Your task to perform on an android device: View the shopping cart on amazon. Search for "logitech g502" on amazon, select the first entry, add it to the cart, then select checkout. Image 0: 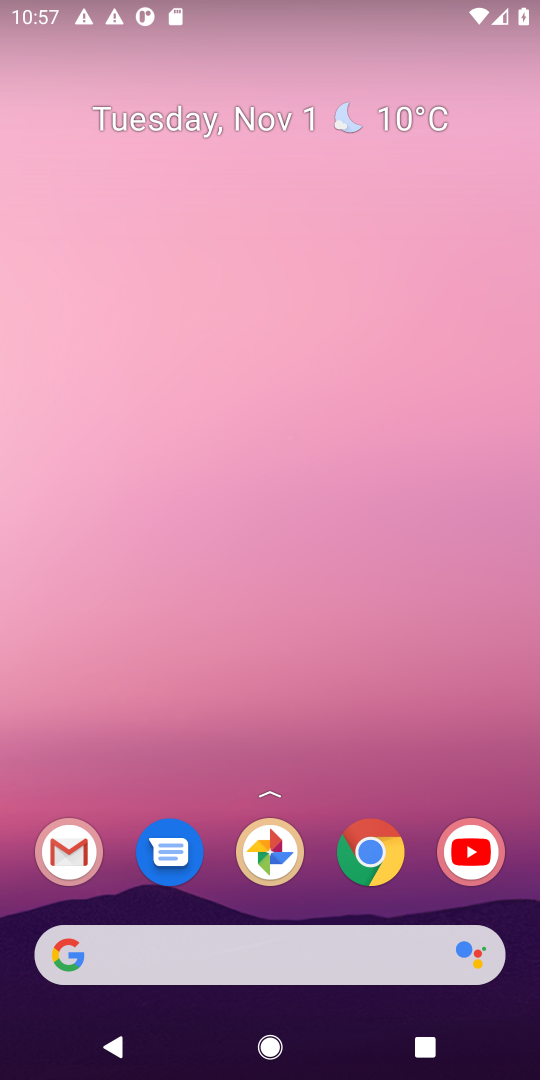
Step 0: press home button
Your task to perform on an android device: View the shopping cart on amazon. Search for "logitech g502" on amazon, select the first entry, add it to the cart, then select checkout. Image 1: 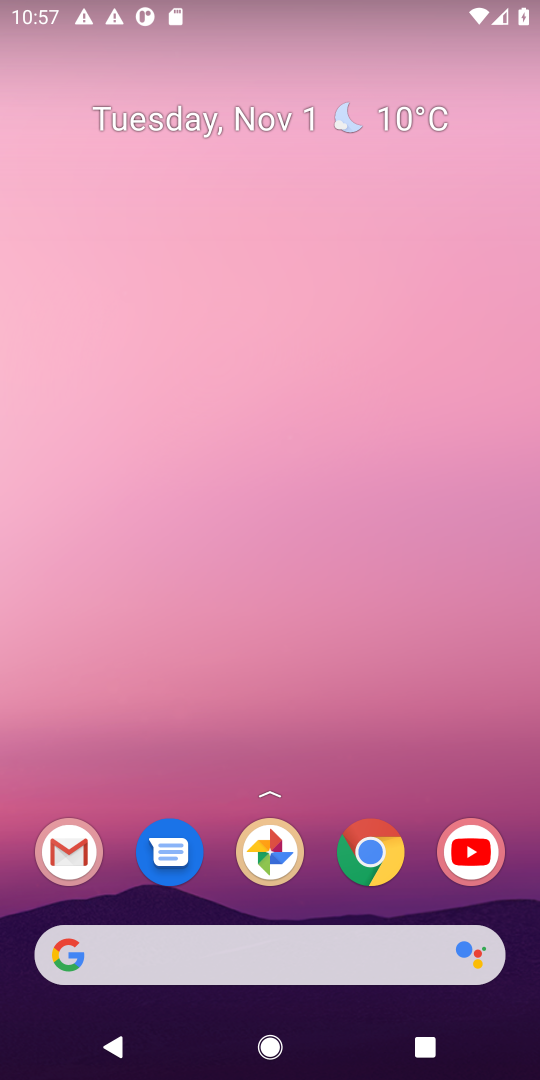
Step 1: click (55, 949)
Your task to perform on an android device: View the shopping cart on amazon. Search for "logitech g502" on amazon, select the first entry, add it to the cart, then select checkout. Image 2: 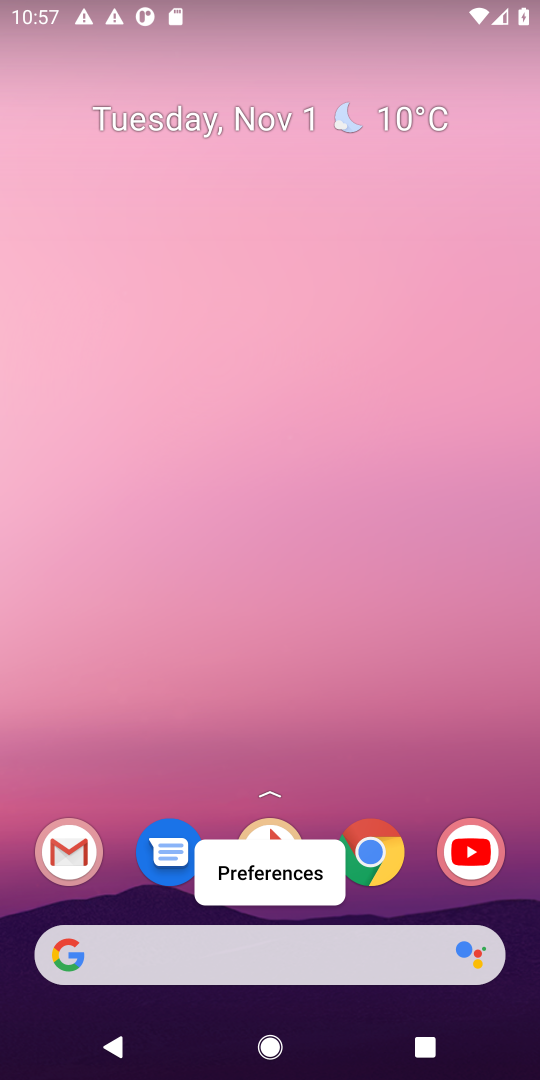
Step 2: click (61, 962)
Your task to perform on an android device: View the shopping cart on amazon. Search for "logitech g502" on amazon, select the first entry, add it to the cart, then select checkout. Image 3: 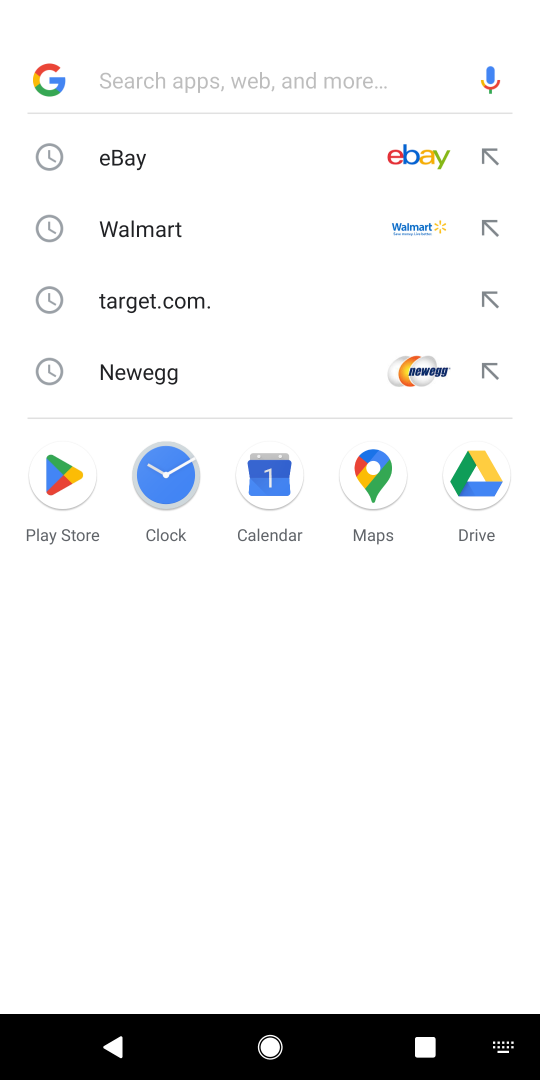
Step 3: type " amazon"
Your task to perform on an android device: View the shopping cart on amazon. Search for "logitech g502" on amazon, select the first entry, add it to the cart, then select checkout. Image 4: 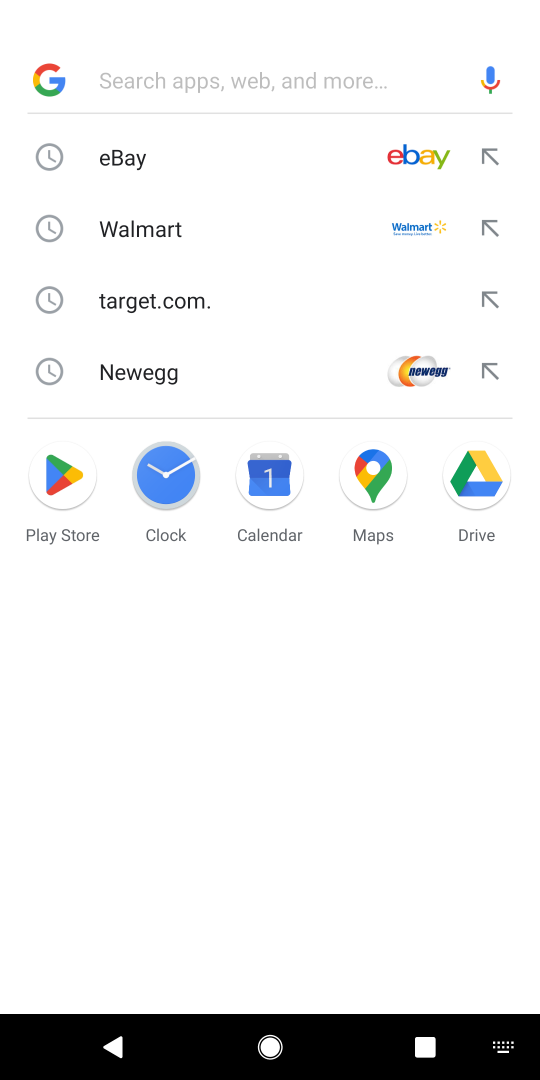
Step 4: click (111, 73)
Your task to perform on an android device: View the shopping cart on amazon. Search for "logitech g502" on amazon, select the first entry, add it to the cart, then select checkout. Image 5: 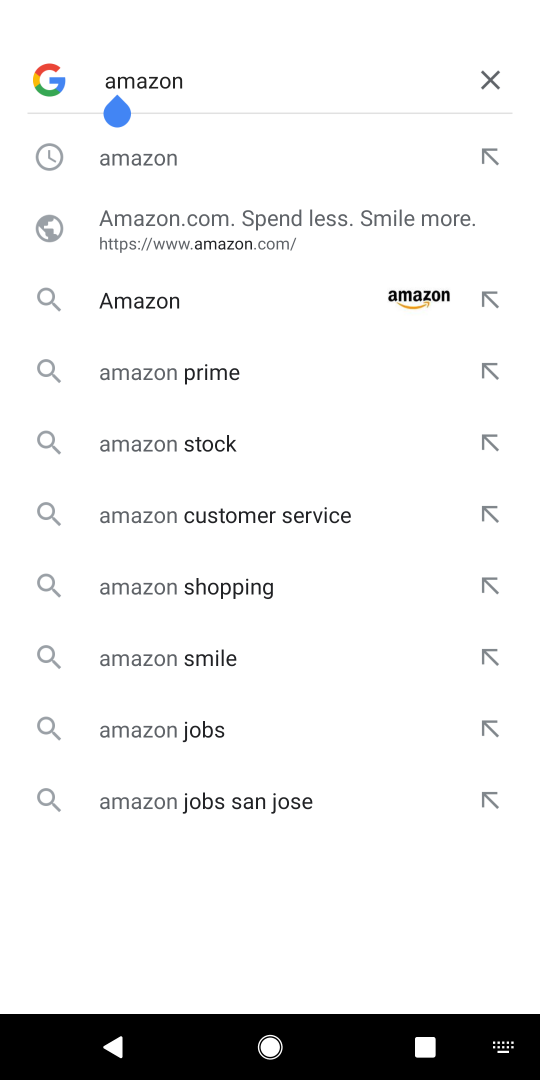
Step 5: click (112, 298)
Your task to perform on an android device: View the shopping cart on amazon. Search for "logitech g502" on amazon, select the first entry, add it to the cart, then select checkout. Image 6: 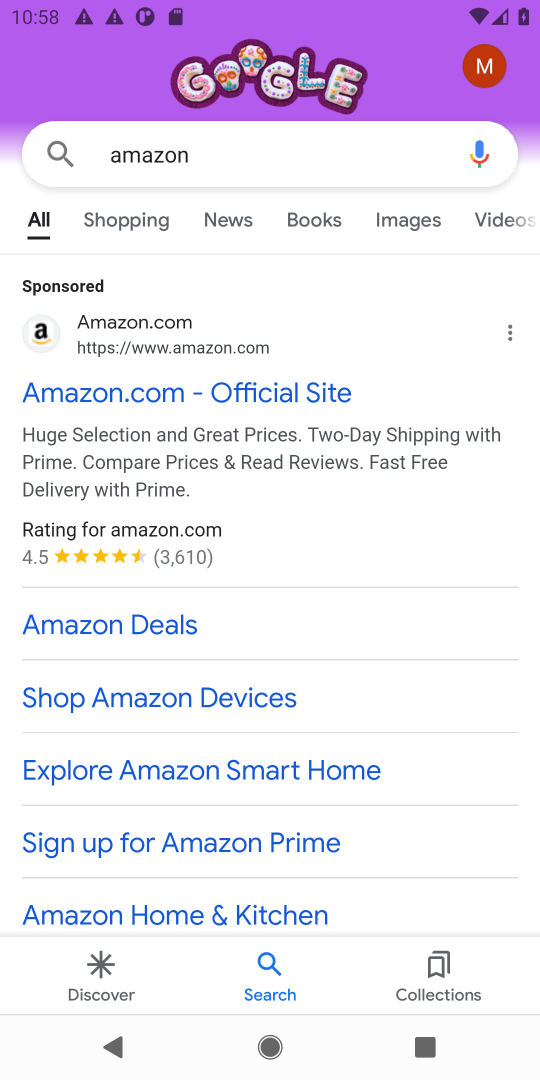
Step 6: click (61, 387)
Your task to perform on an android device: View the shopping cart on amazon. Search for "logitech g502" on amazon, select the first entry, add it to the cart, then select checkout. Image 7: 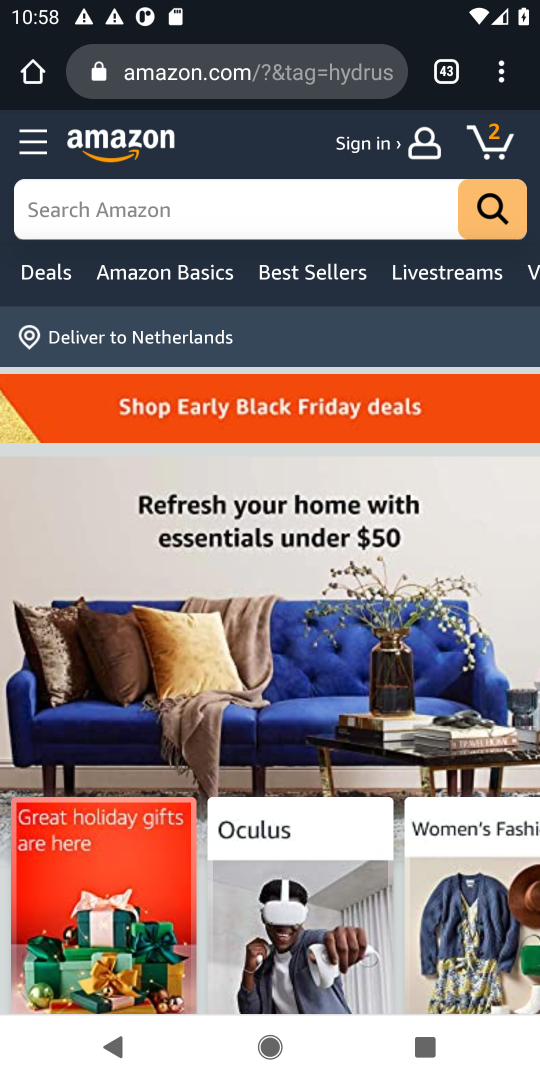
Step 7: click (112, 193)
Your task to perform on an android device: View the shopping cart on amazon. Search for "logitech g502" on amazon, select the first entry, add it to the cart, then select checkout. Image 8: 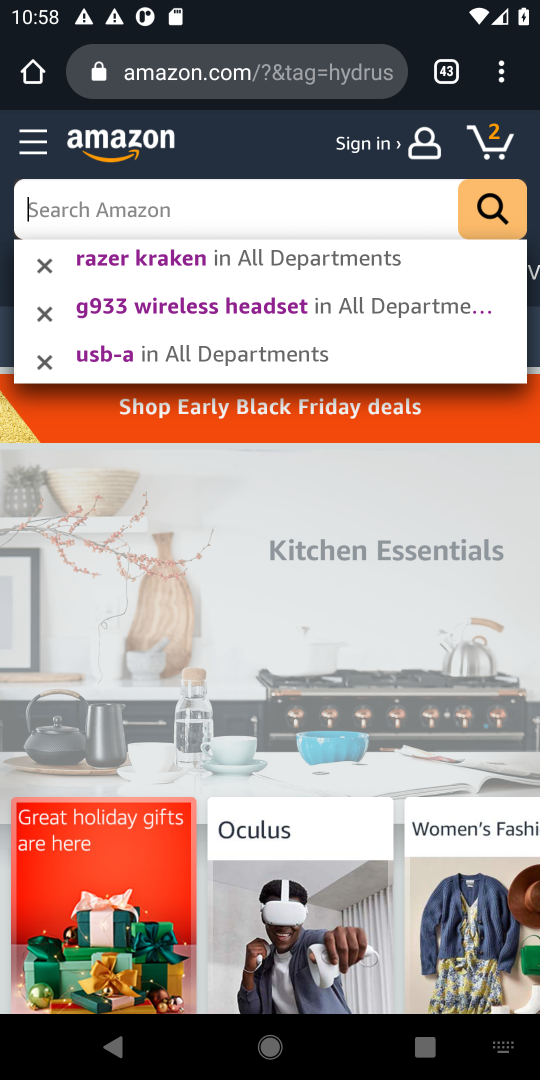
Step 8: type "logitech g502"
Your task to perform on an android device: View the shopping cart on amazon. Search for "logitech g502" on amazon, select the first entry, add it to the cart, then select checkout. Image 9: 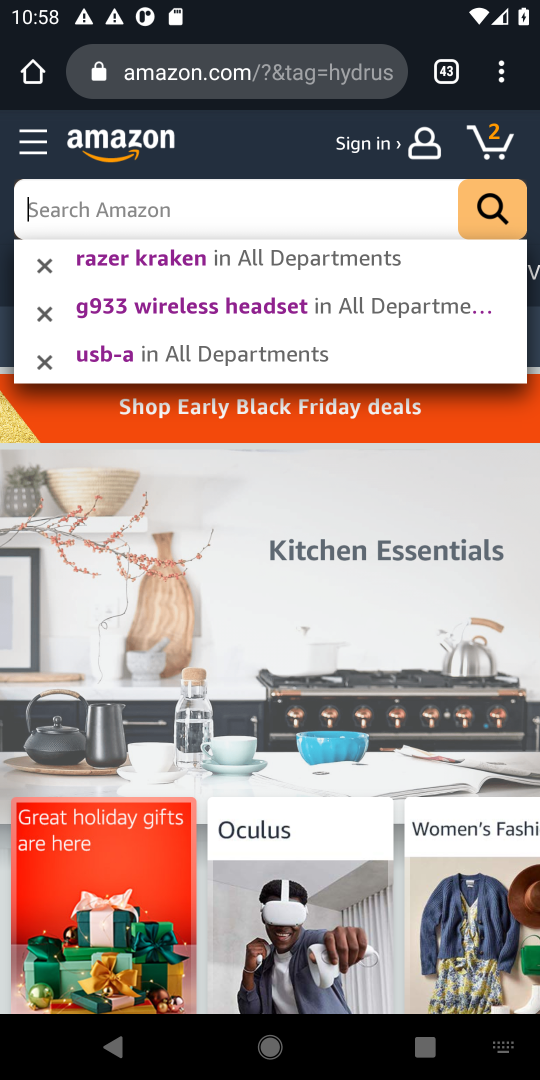
Step 9: click (88, 206)
Your task to perform on an android device: View the shopping cart on amazon. Search for "logitech g502" on amazon, select the first entry, add it to the cart, then select checkout. Image 10: 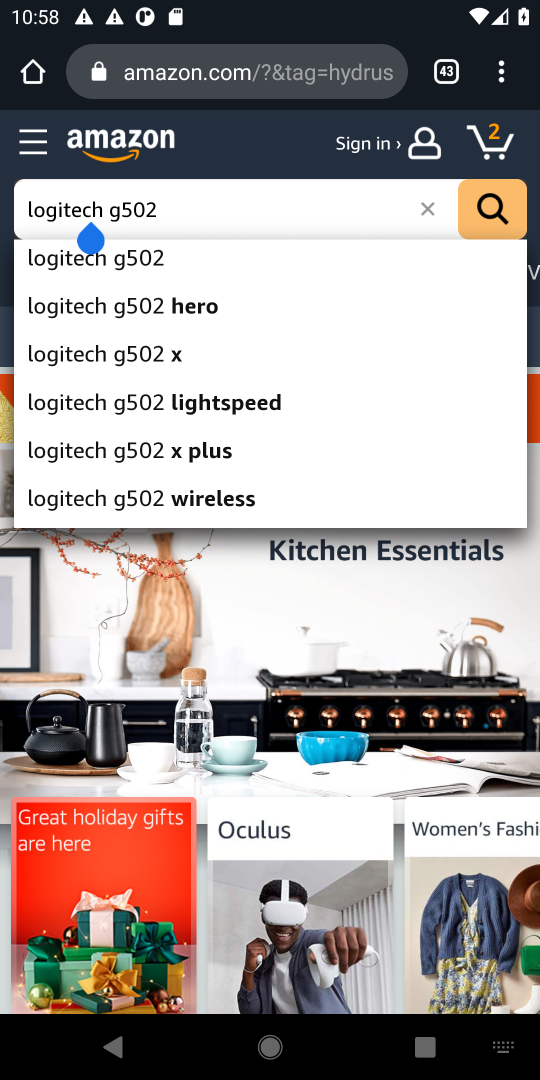
Step 10: press enter
Your task to perform on an android device: View the shopping cart on amazon. Search for "logitech g502" on amazon, select the first entry, add it to the cart, then select checkout. Image 11: 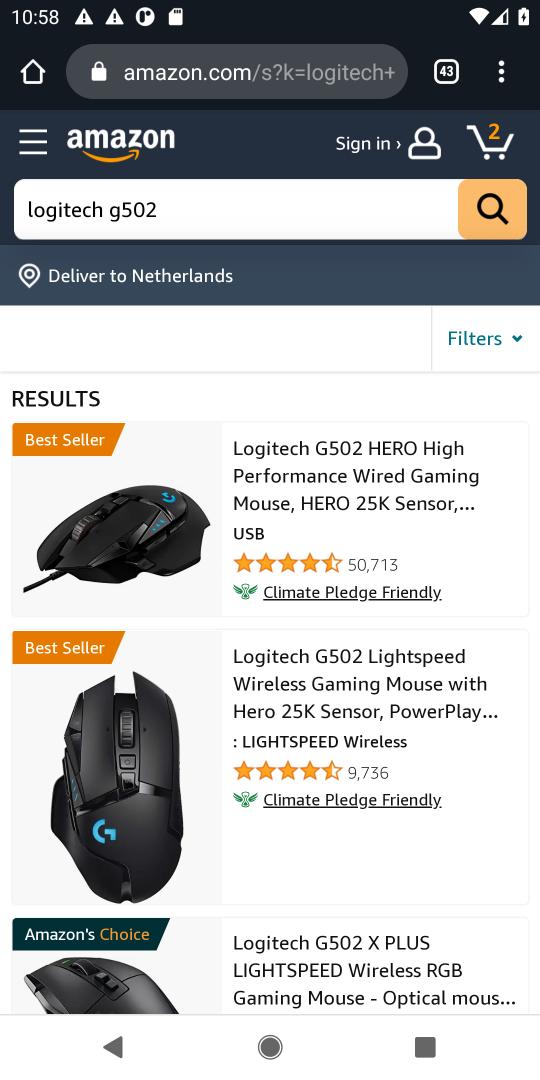
Step 11: click (405, 445)
Your task to perform on an android device: View the shopping cart on amazon. Search for "logitech g502" on amazon, select the first entry, add it to the cart, then select checkout. Image 12: 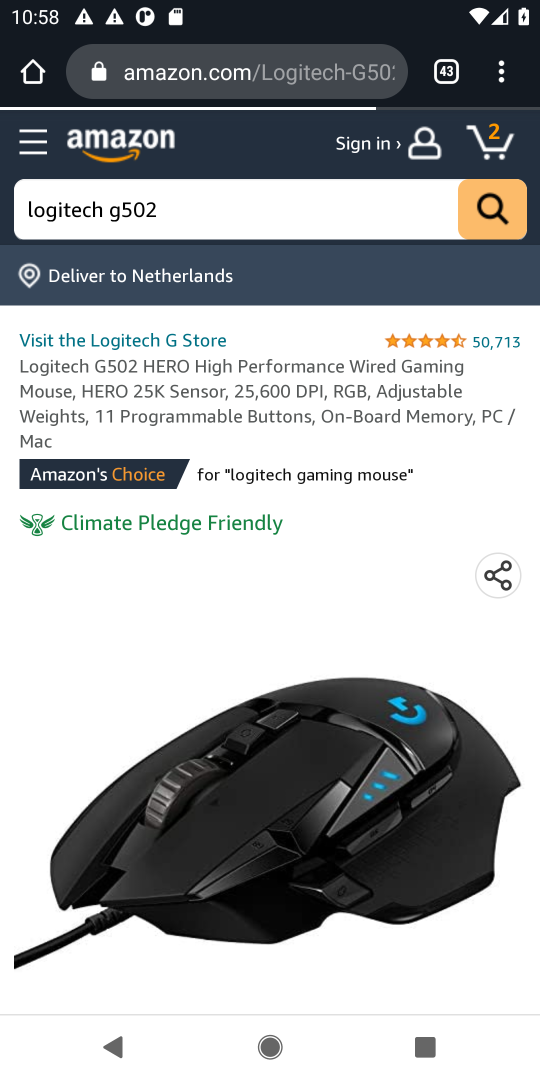
Step 12: drag from (386, 854) to (340, 375)
Your task to perform on an android device: View the shopping cart on amazon. Search for "logitech g502" on amazon, select the first entry, add it to the cart, then select checkout. Image 13: 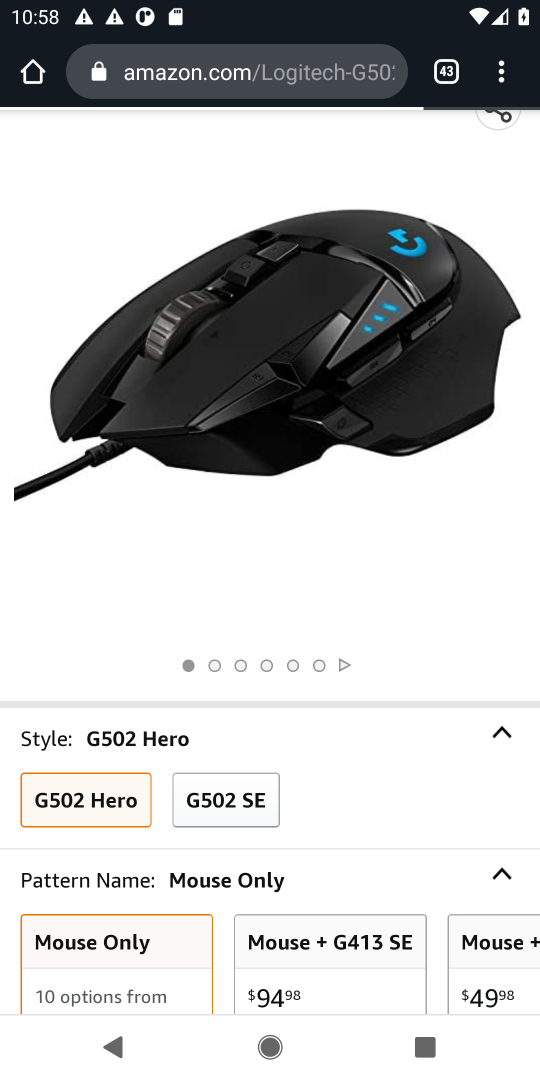
Step 13: drag from (354, 630) to (341, 274)
Your task to perform on an android device: View the shopping cart on amazon. Search for "logitech g502" on amazon, select the first entry, add it to the cart, then select checkout. Image 14: 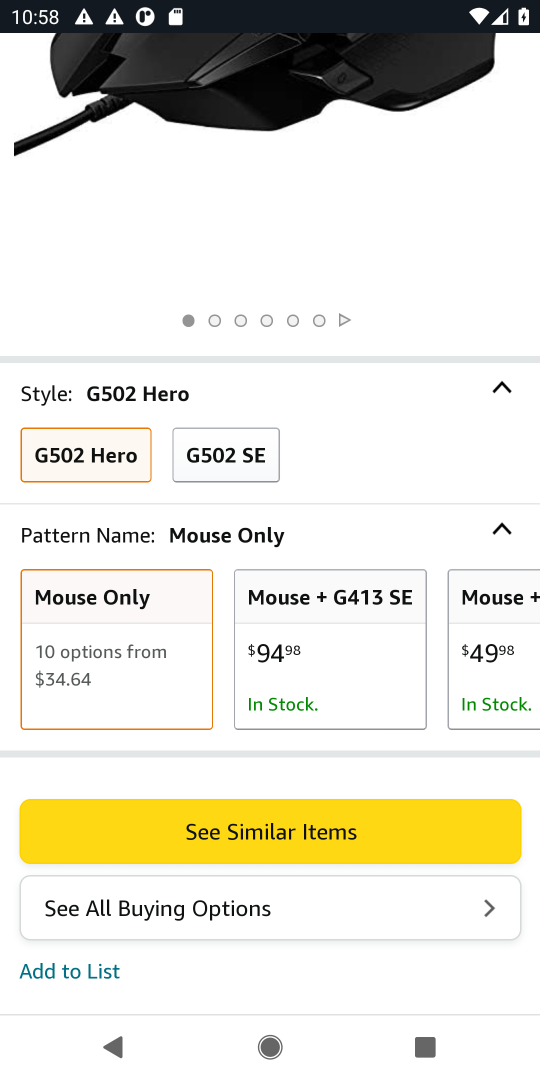
Step 14: drag from (299, 970) to (290, 406)
Your task to perform on an android device: View the shopping cart on amazon. Search for "logitech g502" on amazon, select the first entry, add it to the cart, then select checkout. Image 15: 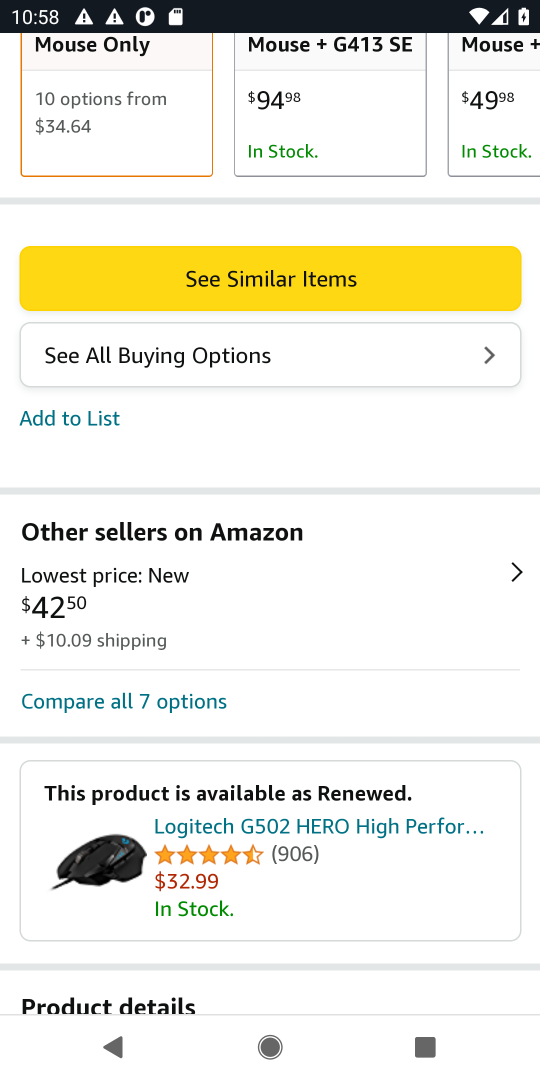
Step 15: drag from (299, 815) to (275, 245)
Your task to perform on an android device: View the shopping cart on amazon. Search for "logitech g502" on amazon, select the first entry, add it to the cart, then select checkout. Image 16: 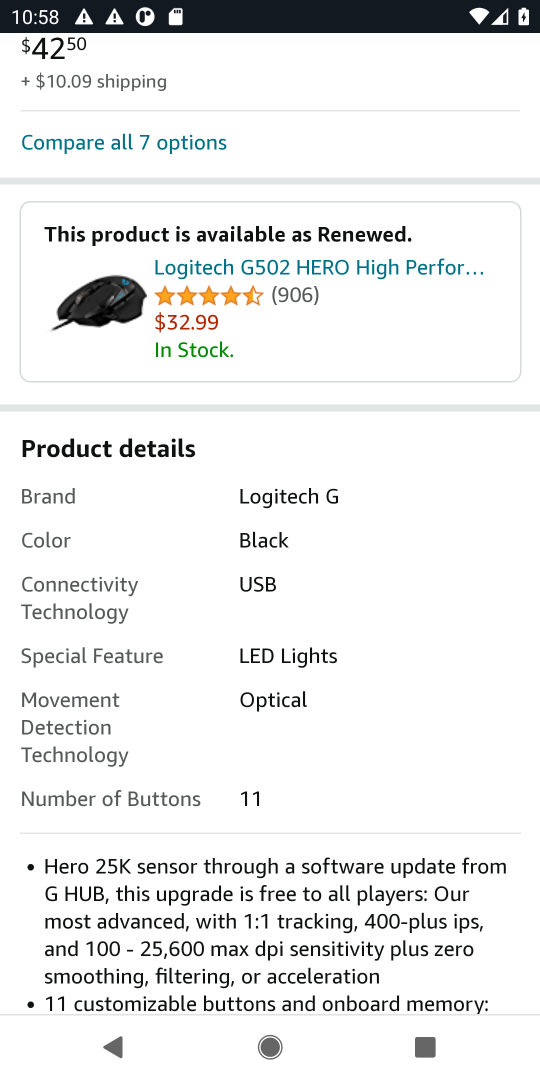
Step 16: drag from (317, 130) to (324, 992)
Your task to perform on an android device: View the shopping cart on amazon. Search for "logitech g502" on amazon, select the first entry, add it to the cart, then select checkout. Image 17: 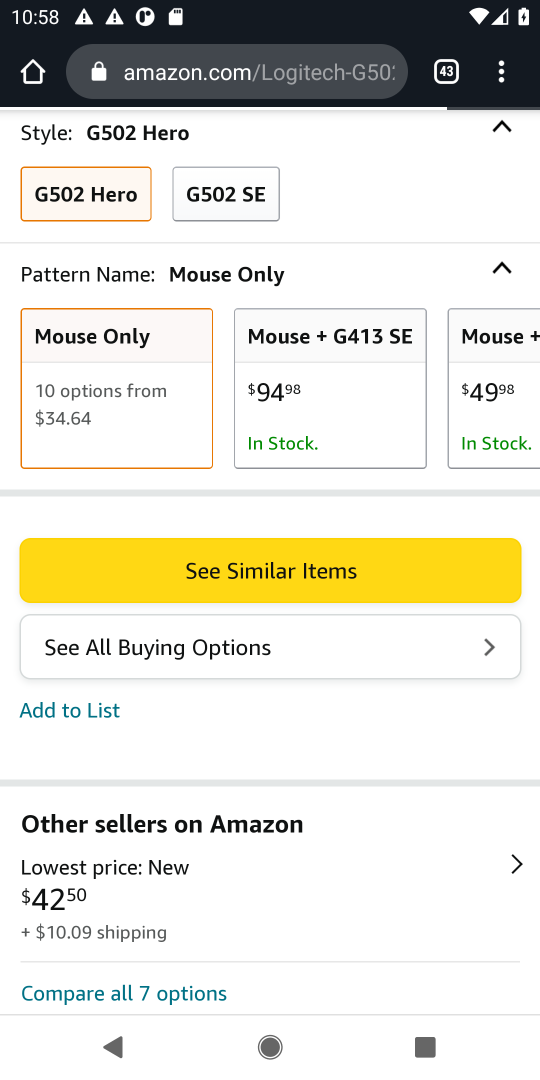
Step 17: drag from (366, 171) to (402, 951)
Your task to perform on an android device: View the shopping cart on amazon. Search for "logitech g502" on amazon, select the first entry, add it to the cart, then select checkout. Image 18: 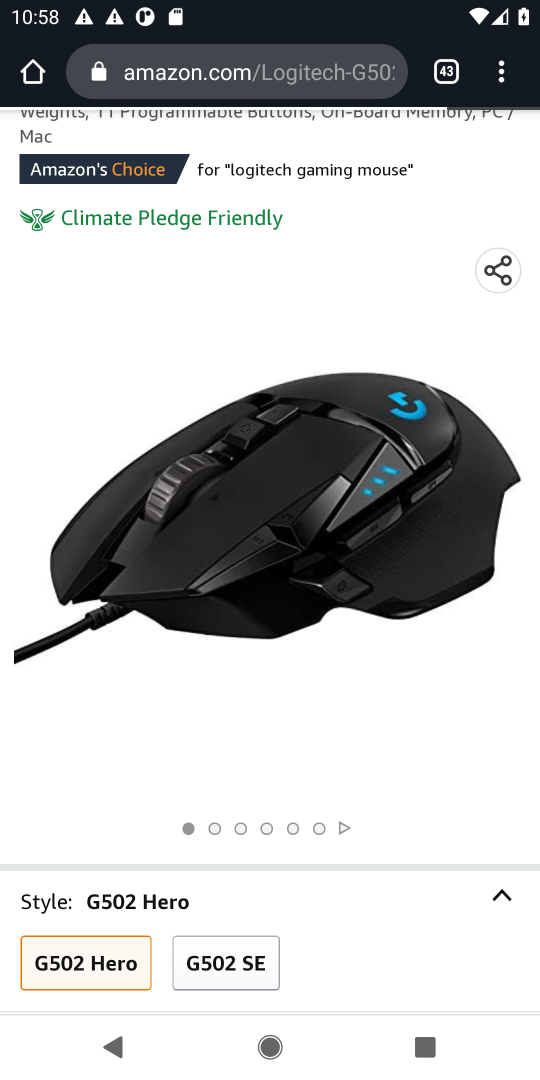
Step 18: drag from (454, 155) to (427, 736)
Your task to perform on an android device: View the shopping cart on amazon. Search for "logitech g502" on amazon, select the first entry, add it to the cart, then select checkout. Image 19: 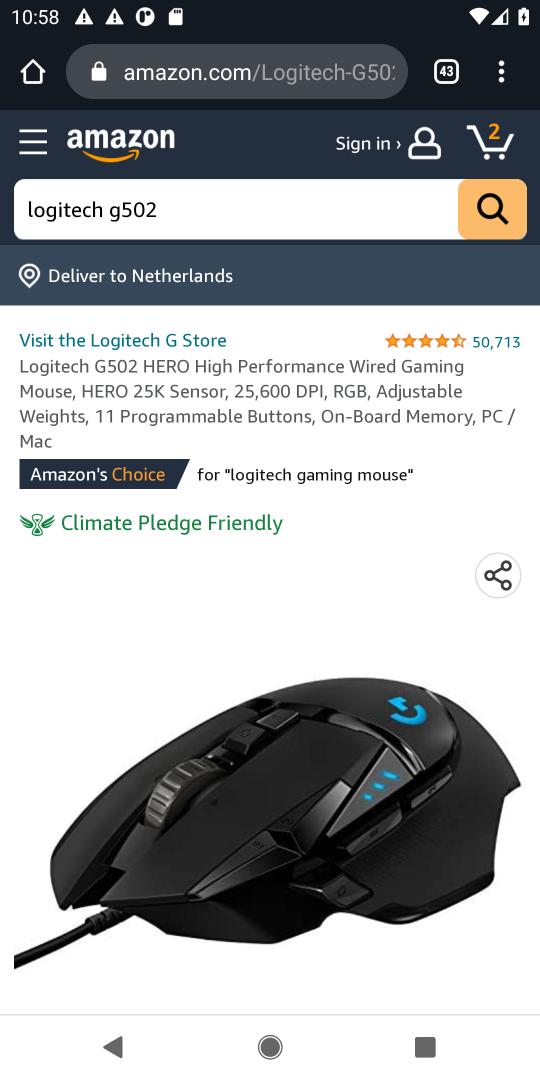
Step 19: drag from (399, 861) to (306, 17)
Your task to perform on an android device: View the shopping cart on amazon. Search for "logitech g502" on amazon, select the first entry, add it to the cart, then select checkout. Image 20: 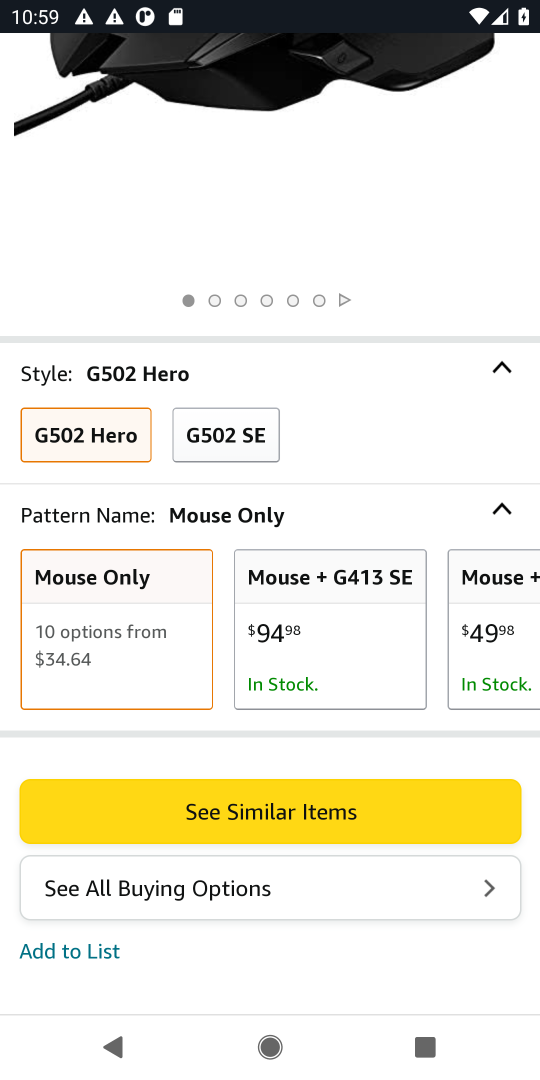
Step 20: drag from (360, 818) to (286, 69)
Your task to perform on an android device: View the shopping cart on amazon. Search for "logitech g502" on amazon, select the first entry, add it to the cart, then select checkout. Image 21: 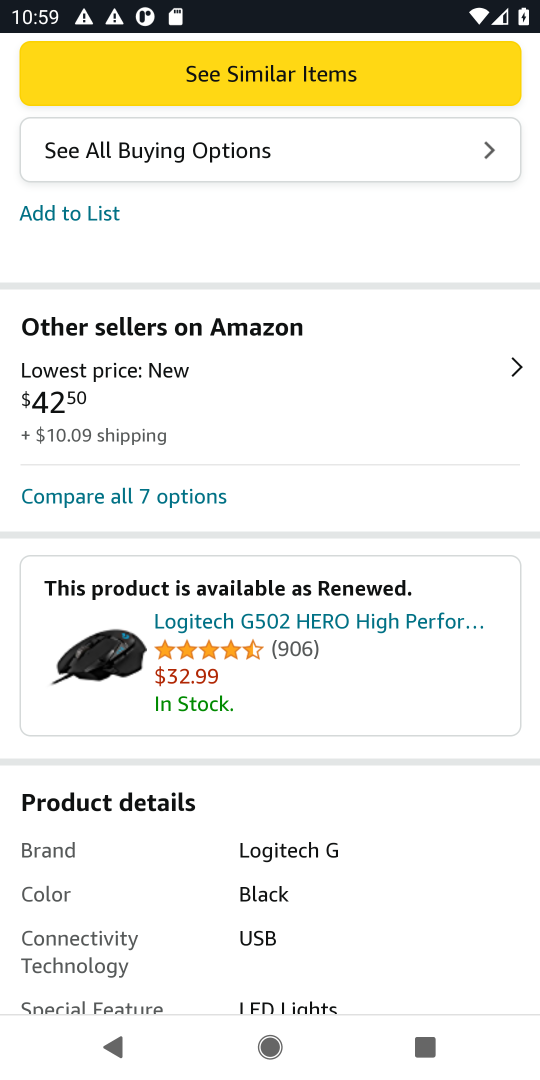
Step 21: click (86, 216)
Your task to perform on an android device: View the shopping cart on amazon. Search for "logitech g502" on amazon, select the first entry, add it to the cart, then select checkout. Image 22: 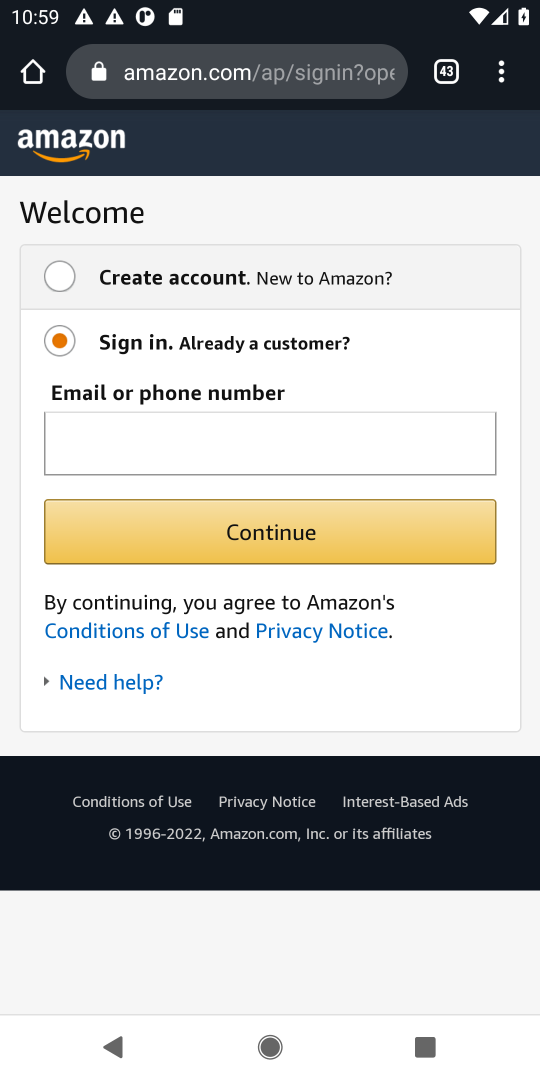
Step 22: task complete